Your task to perform on an android device: turn on improve location accuracy Image 0: 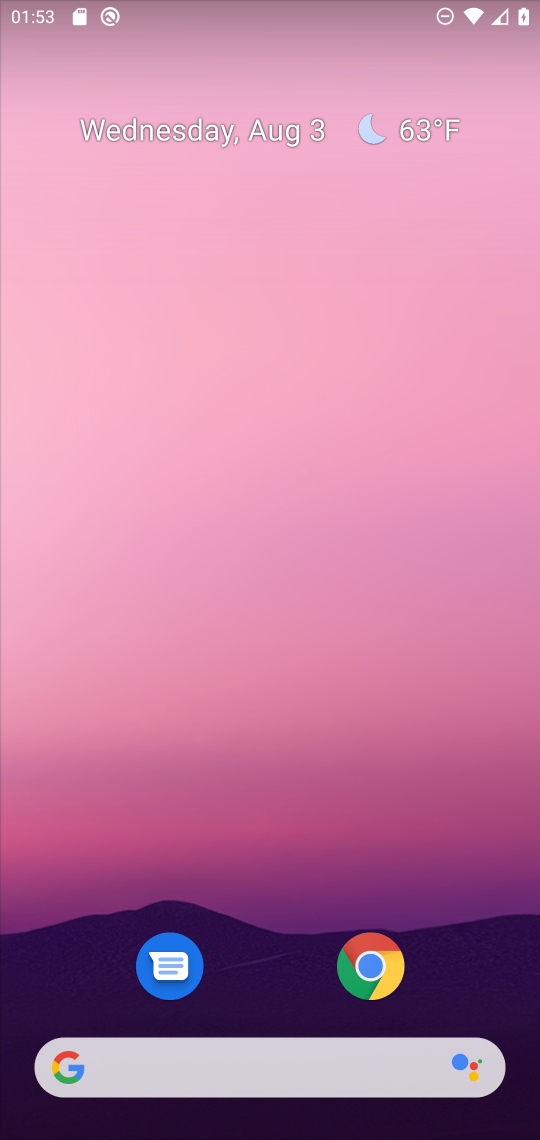
Step 0: drag from (281, 986) to (279, 458)
Your task to perform on an android device: turn on improve location accuracy Image 1: 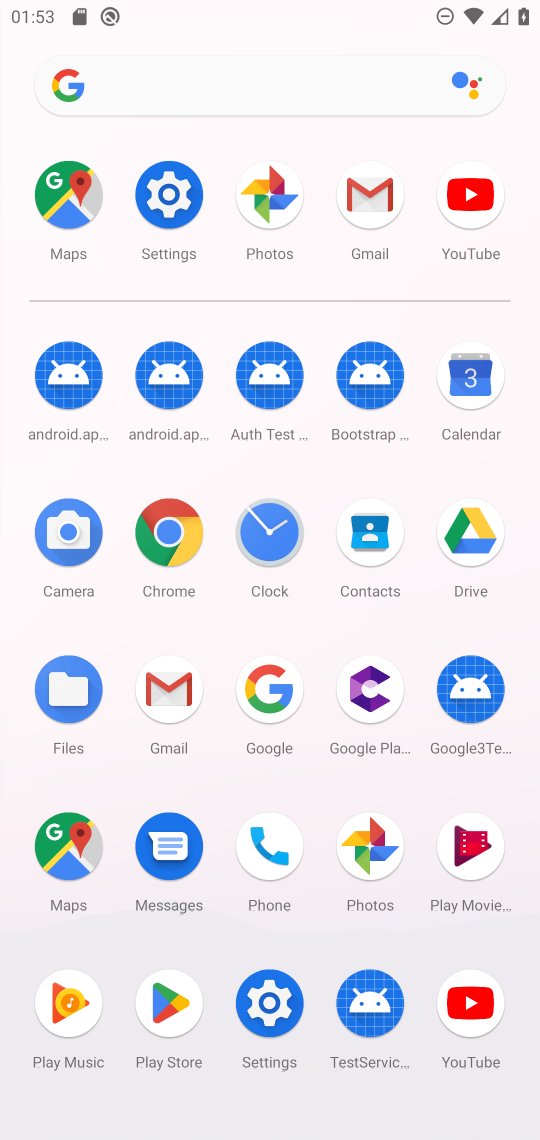
Step 1: click (185, 223)
Your task to perform on an android device: turn on improve location accuracy Image 2: 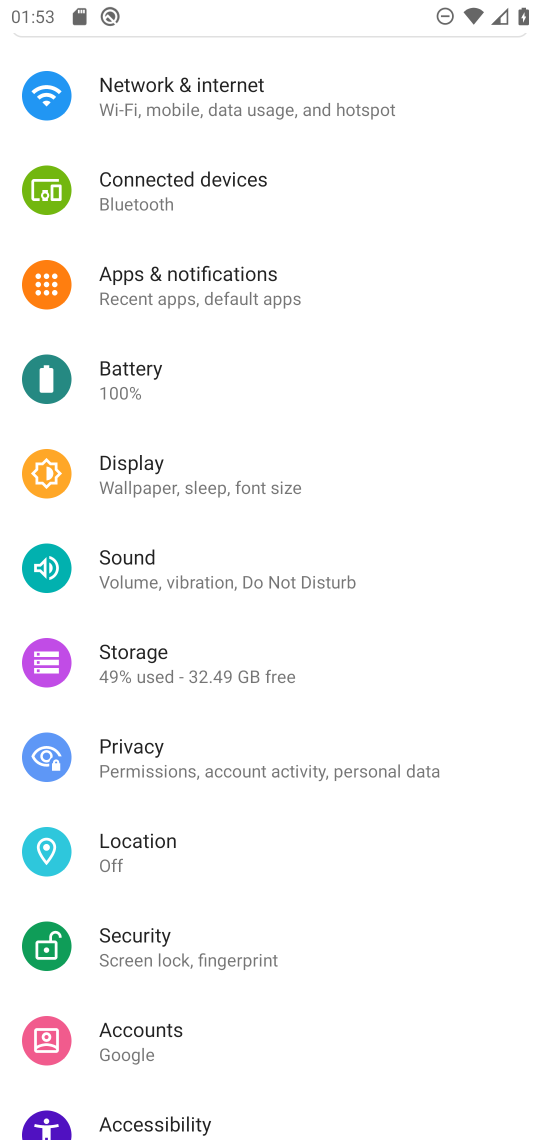
Step 2: click (189, 866)
Your task to perform on an android device: turn on improve location accuracy Image 3: 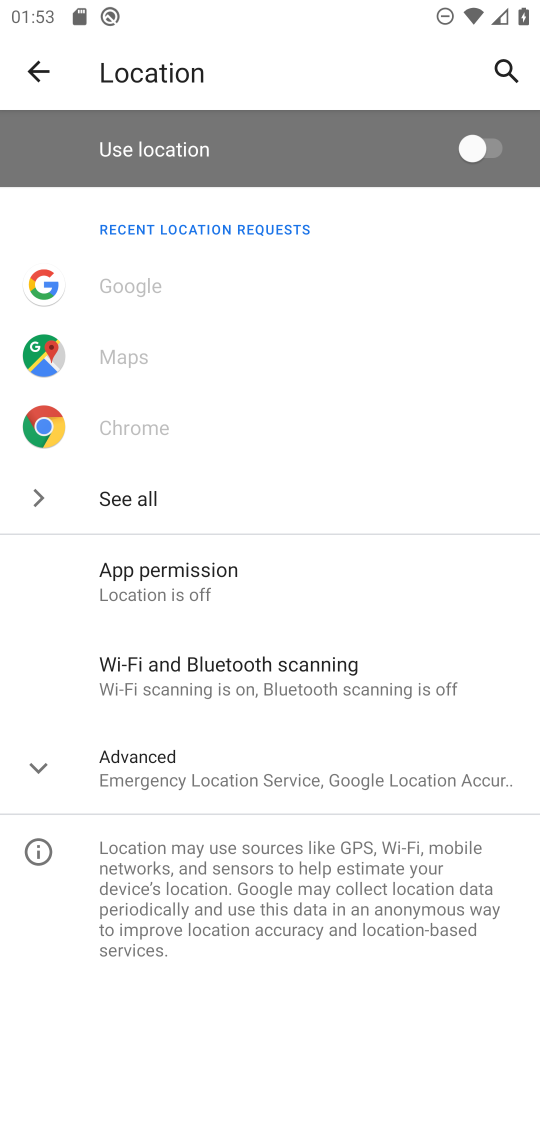
Step 3: click (209, 773)
Your task to perform on an android device: turn on improve location accuracy Image 4: 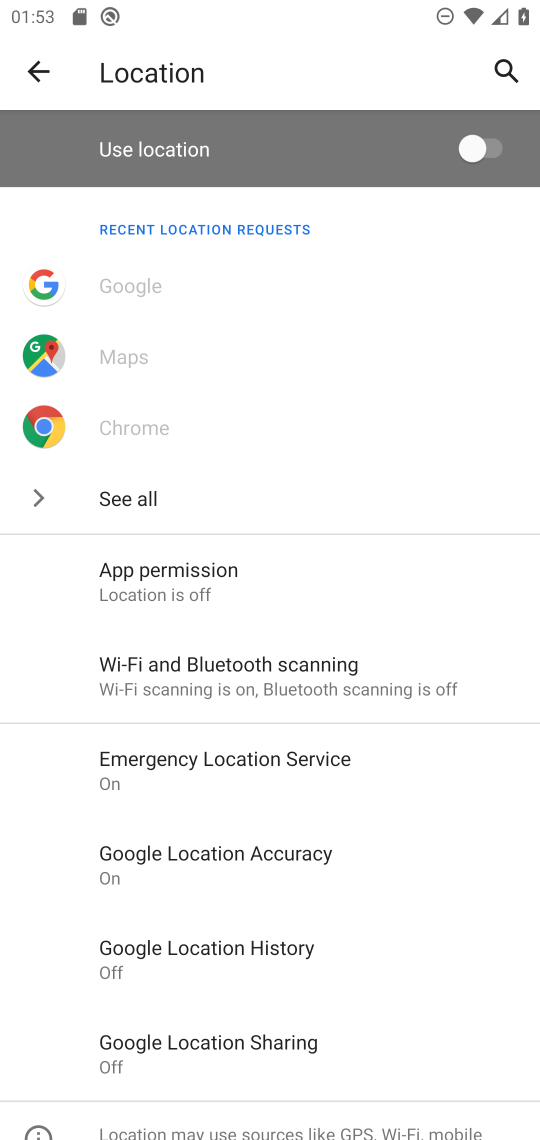
Step 4: click (248, 877)
Your task to perform on an android device: turn on improve location accuracy Image 5: 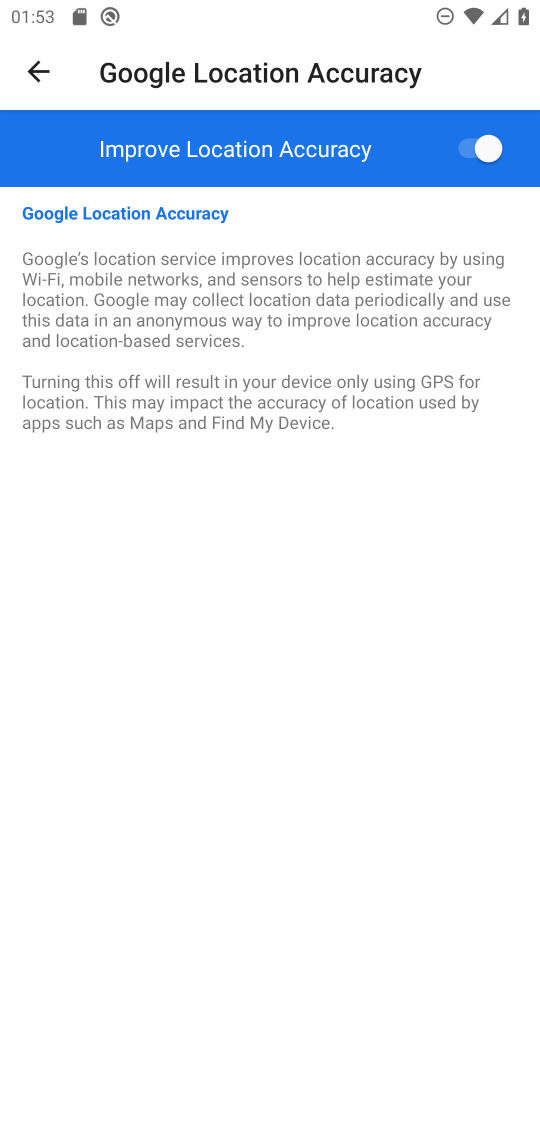
Step 5: task complete